Your task to perform on an android device: change notification settings in the gmail app Image 0: 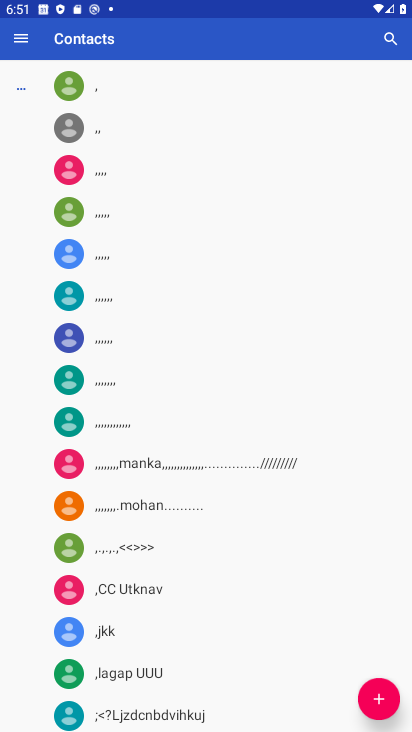
Step 0: press home button
Your task to perform on an android device: change notification settings in the gmail app Image 1: 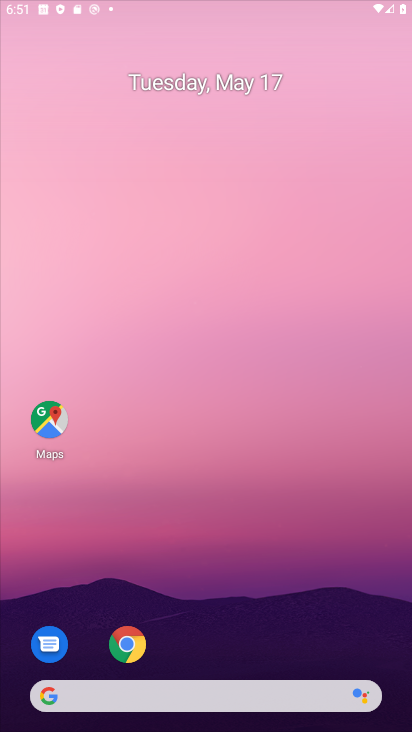
Step 1: drag from (337, 625) to (252, 154)
Your task to perform on an android device: change notification settings in the gmail app Image 2: 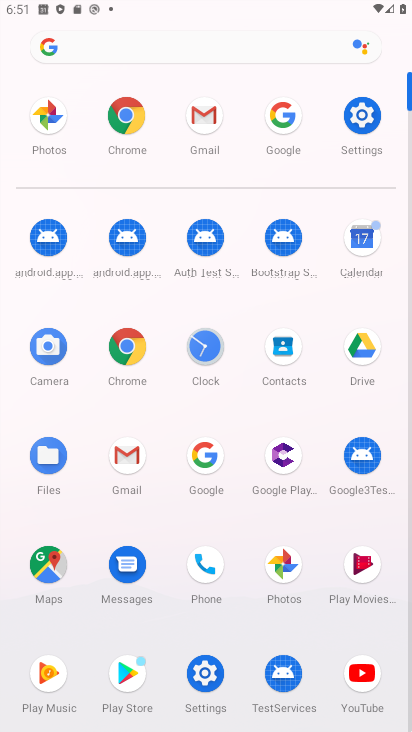
Step 2: click (130, 453)
Your task to perform on an android device: change notification settings in the gmail app Image 3: 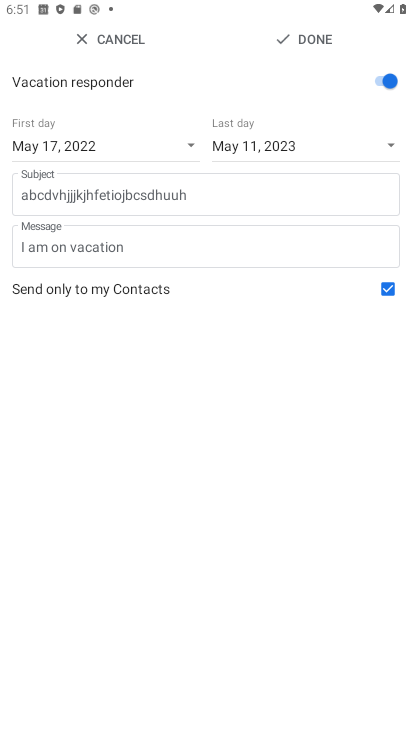
Step 3: press back button
Your task to perform on an android device: change notification settings in the gmail app Image 4: 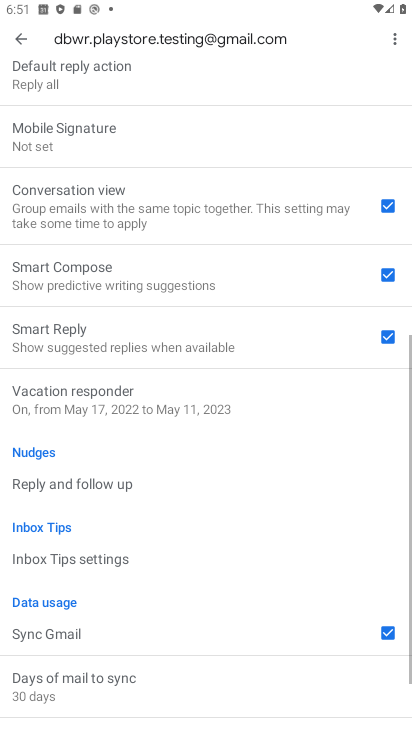
Step 4: drag from (212, 156) to (172, 687)
Your task to perform on an android device: change notification settings in the gmail app Image 5: 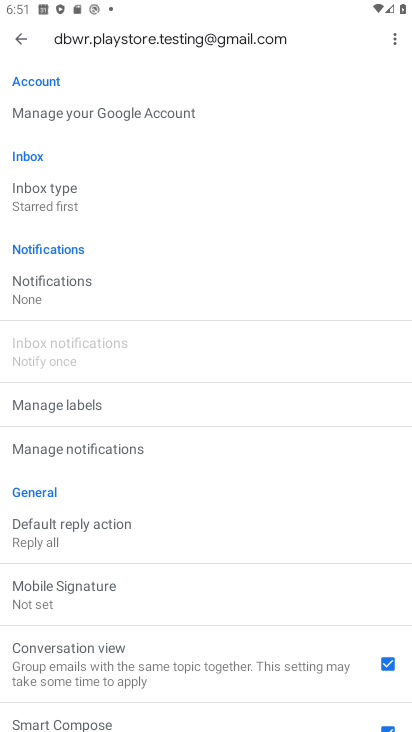
Step 5: click (94, 306)
Your task to perform on an android device: change notification settings in the gmail app Image 6: 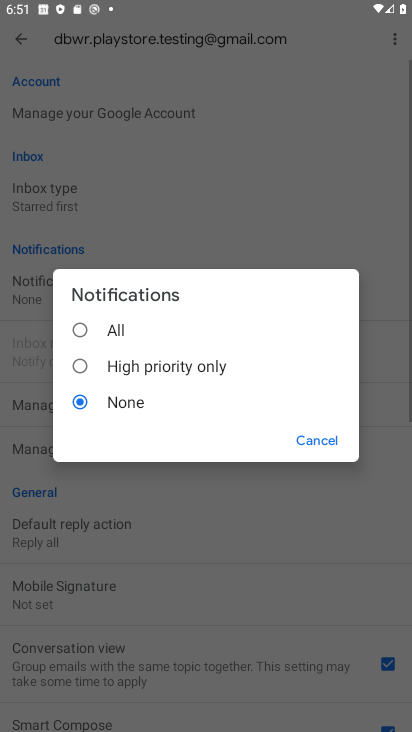
Step 6: click (110, 329)
Your task to perform on an android device: change notification settings in the gmail app Image 7: 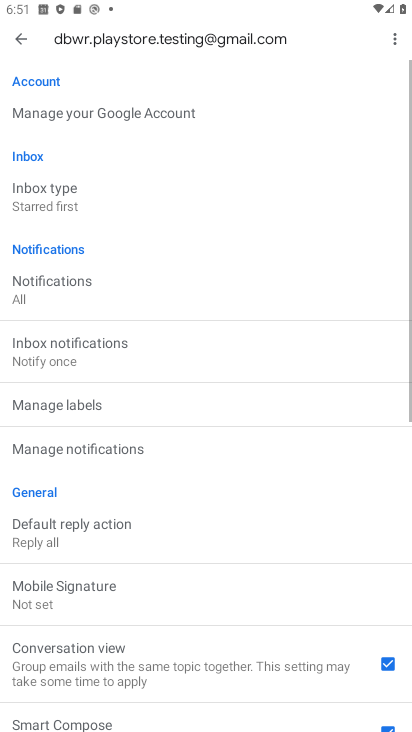
Step 7: task complete